Your task to perform on an android device: Open location settings Image 0: 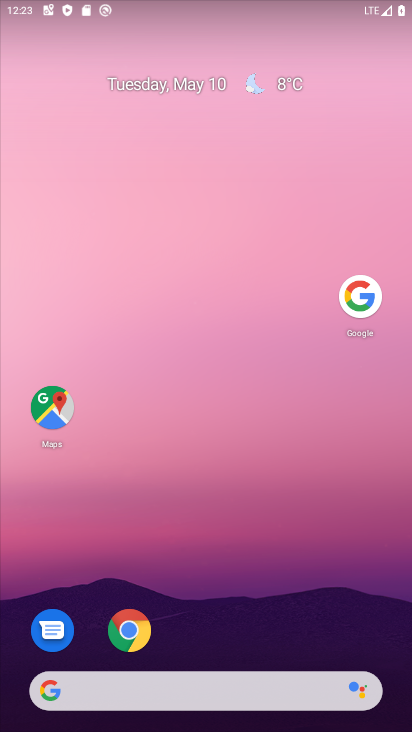
Step 0: press home button
Your task to perform on an android device: Open location settings Image 1: 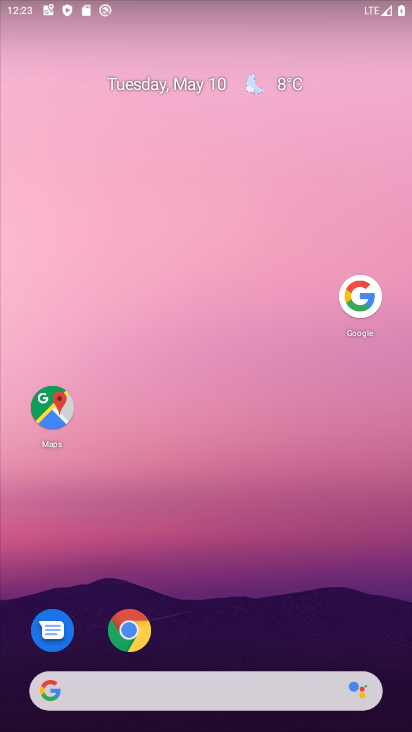
Step 1: drag from (158, 698) to (234, 241)
Your task to perform on an android device: Open location settings Image 2: 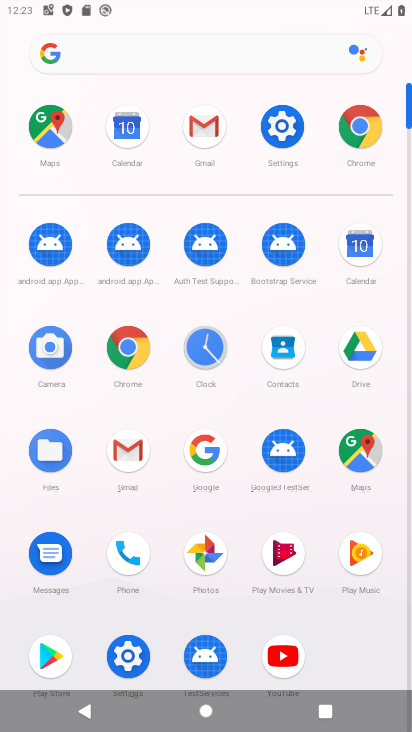
Step 2: click (283, 130)
Your task to perform on an android device: Open location settings Image 3: 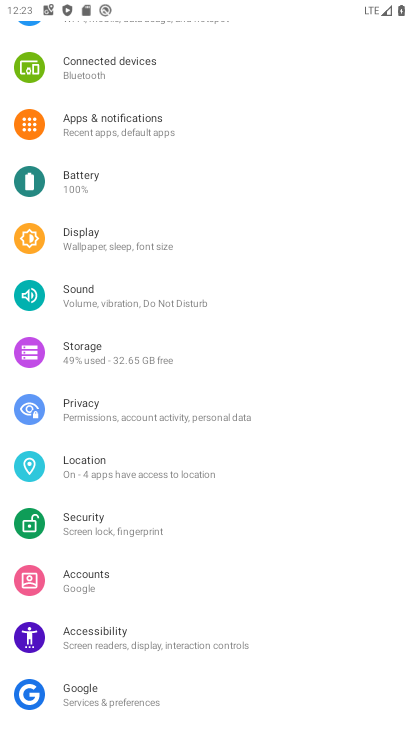
Step 3: click (102, 470)
Your task to perform on an android device: Open location settings Image 4: 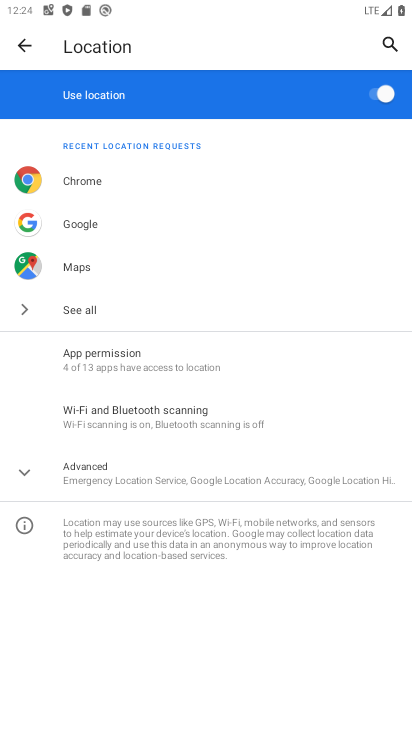
Step 4: task complete